Your task to perform on an android device: Clear the cart on newegg. Search for lenovo thinkpad on newegg, select the first entry, and add it to the cart. Image 0: 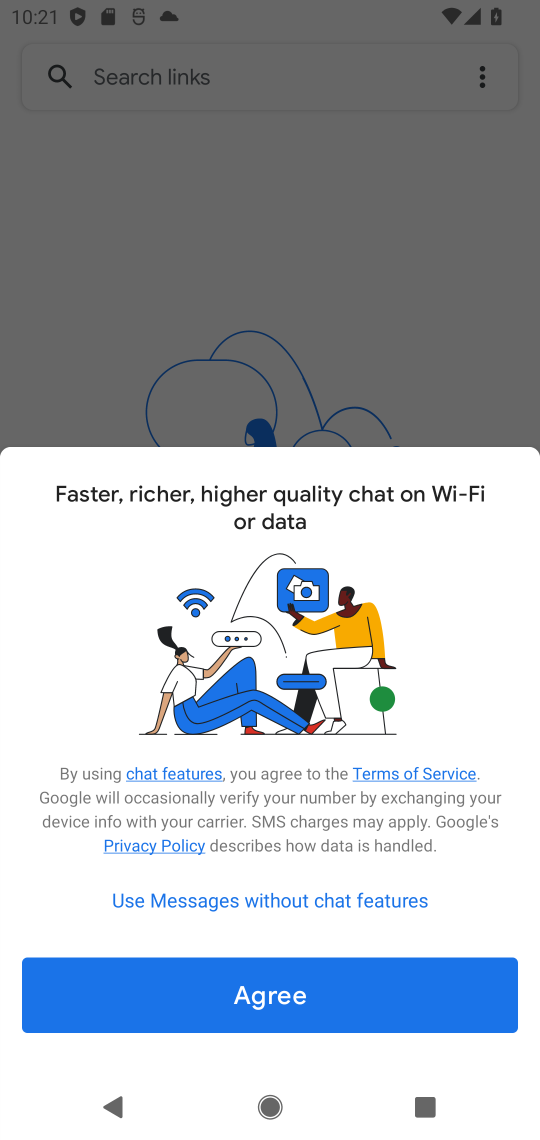
Step 0: press home button
Your task to perform on an android device: Clear the cart on newegg. Search for lenovo thinkpad on newegg, select the first entry, and add it to the cart. Image 1: 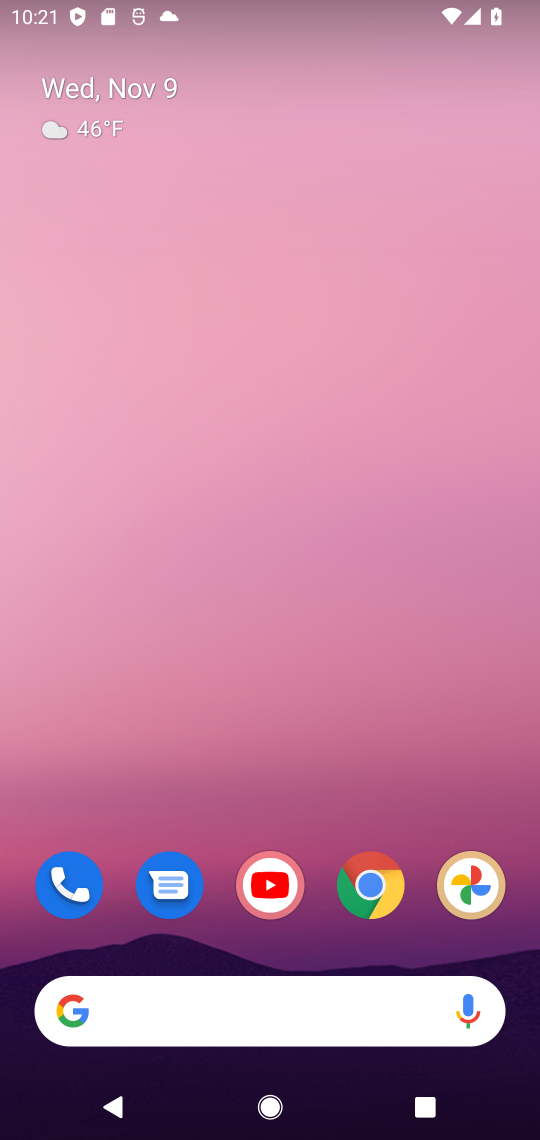
Step 1: click (369, 899)
Your task to perform on an android device: Clear the cart on newegg. Search for lenovo thinkpad on newegg, select the first entry, and add it to the cart. Image 2: 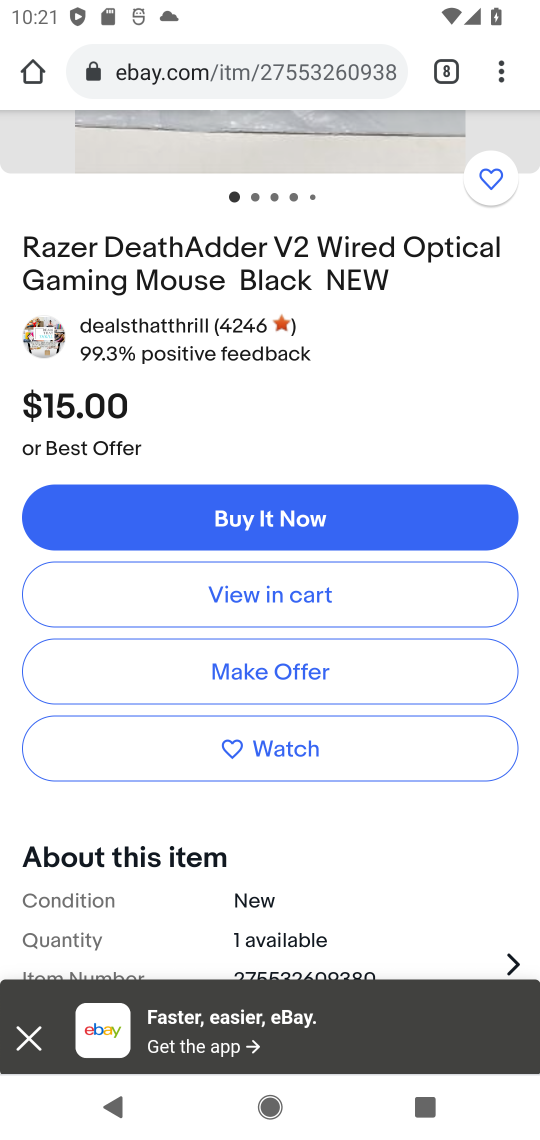
Step 2: click (443, 78)
Your task to perform on an android device: Clear the cart on newegg. Search for lenovo thinkpad on newegg, select the first entry, and add it to the cart. Image 3: 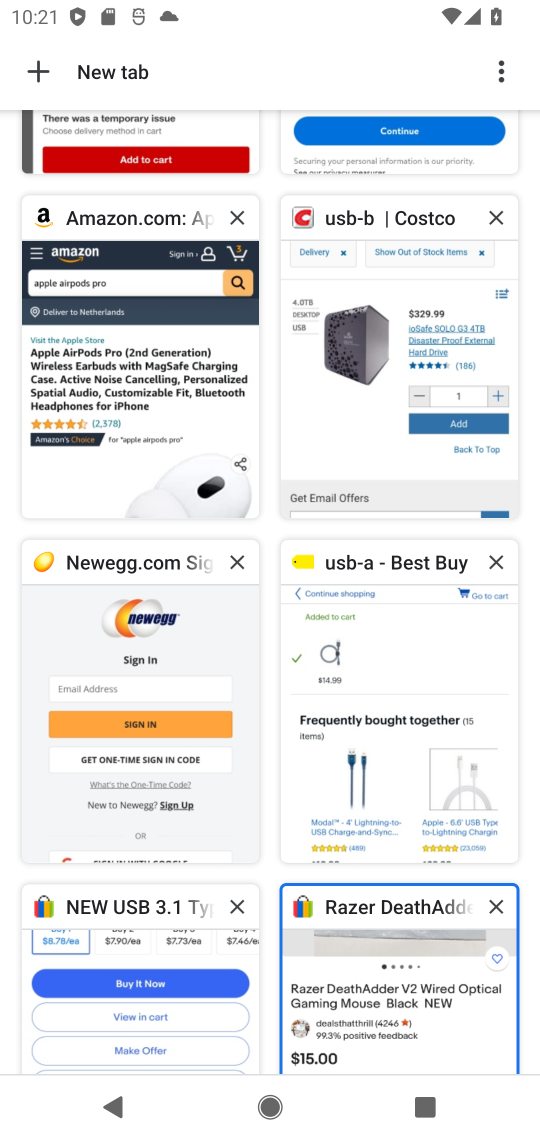
Step 3: click (124, 636)
Your task to perform on an android device: Clear the cart on newegg. Search for lenovo thinkpad on newegg, select the first entry, and add it to the cart. Image 4: 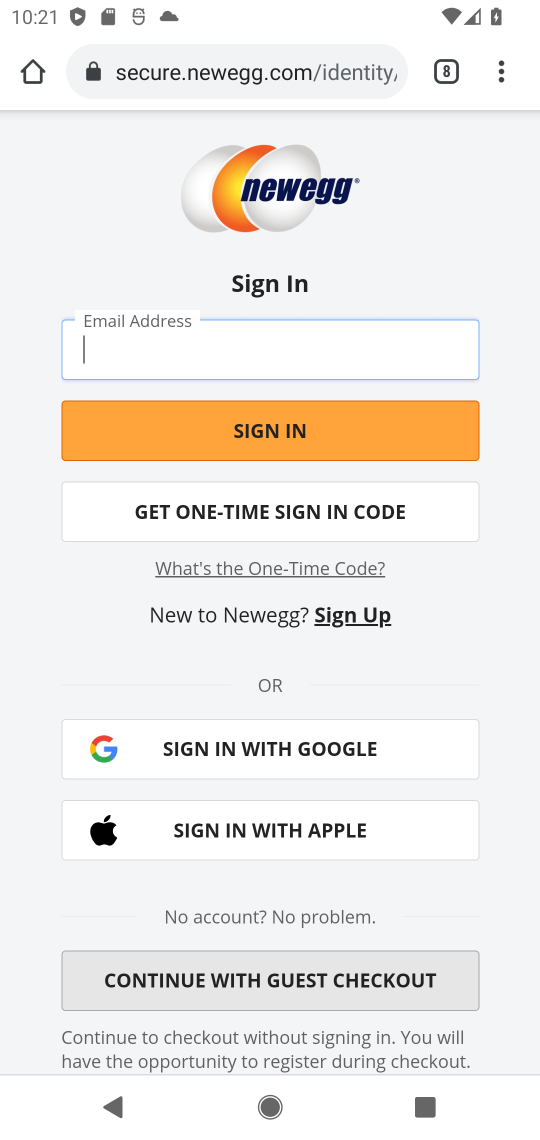
Step 4: press back button
Your task to perform on an android device: Clear the cart on newegg. Search for lenovo thinkpad on newegg, select the first entry, and add it to the cart. Image 5: 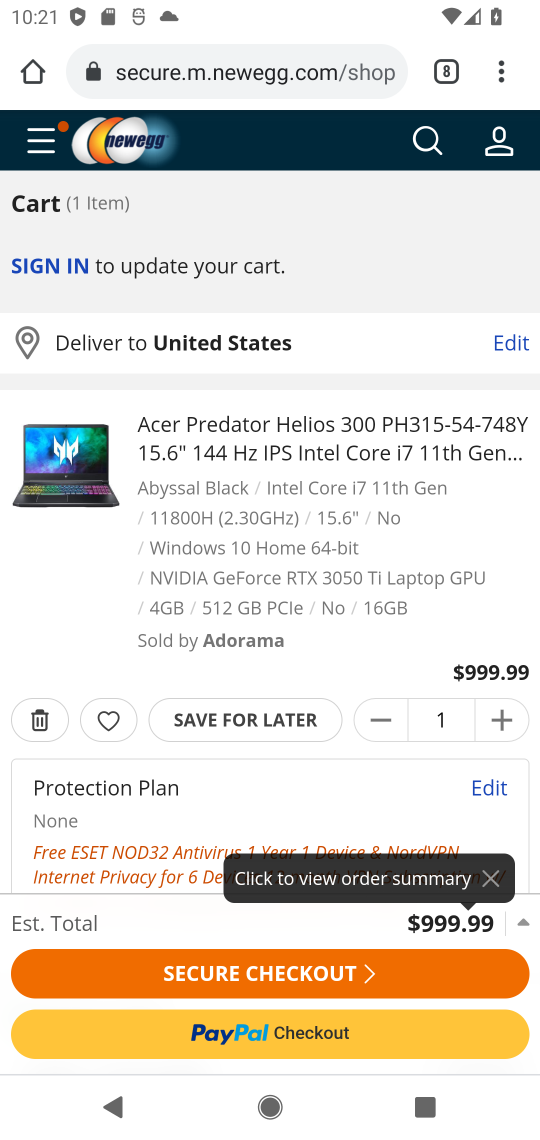
Step 5: click (430, 133)
Your task to perform on an android device: Clear the cart on newegg. Search for lenovo thinkpad on newegg, select the first entry, and add it to the cart. Image 6: 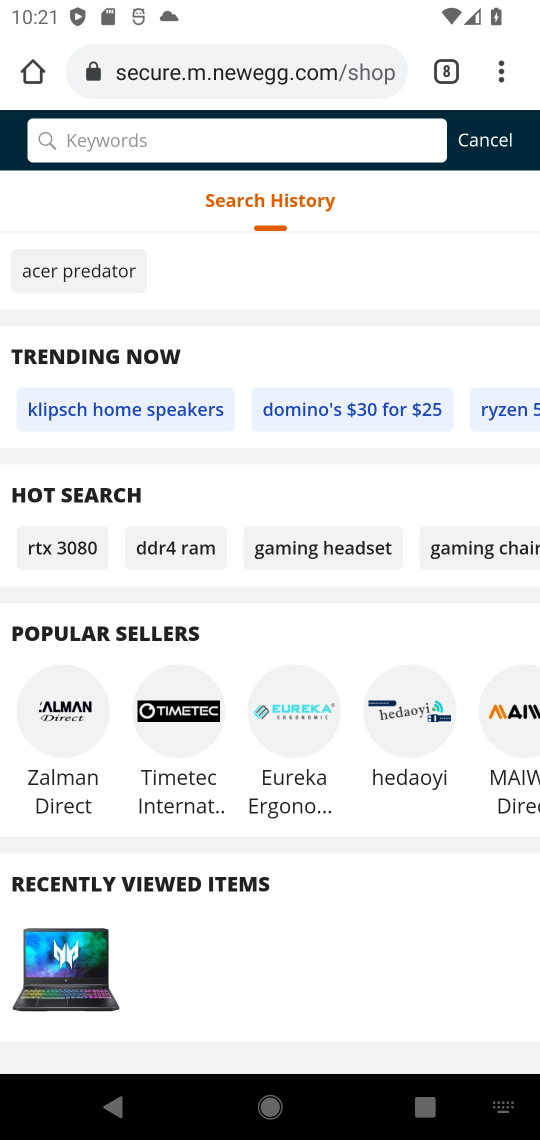
Step 6: type "lenovo thinkpad"
Your task to perform on an android device: Clear the cart on newegg. Search for lenovo thinkpad on newegg, select the first entry, and add it to the cart. Image 7: 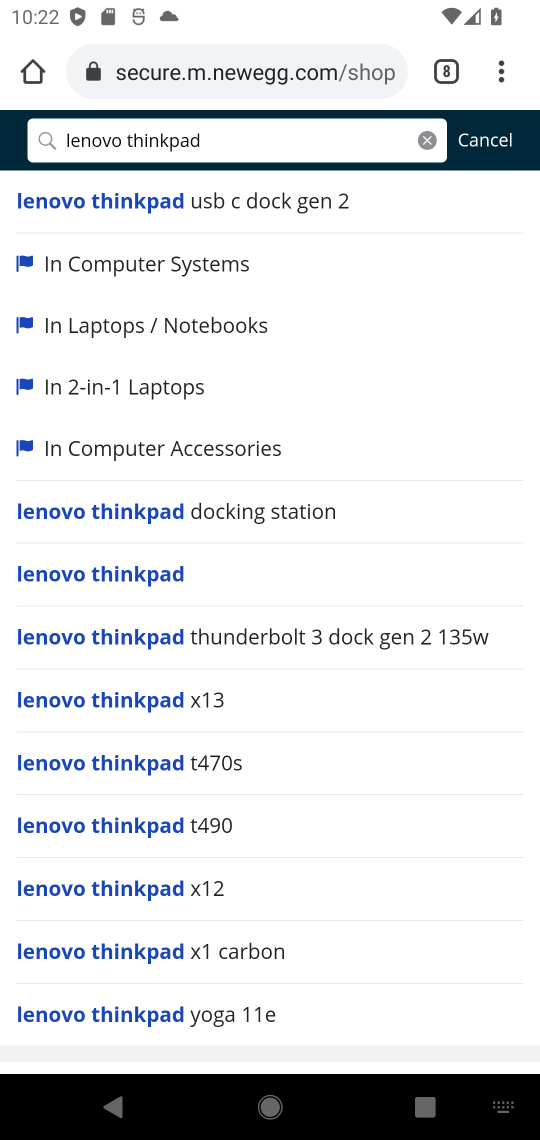
Step 7: click (100, 569)
Your task to perform on an android device: Clear the cart on newegg. Search for lenovo thinkpad on newegg, select the first entry, and add it to the cart. Image 8: 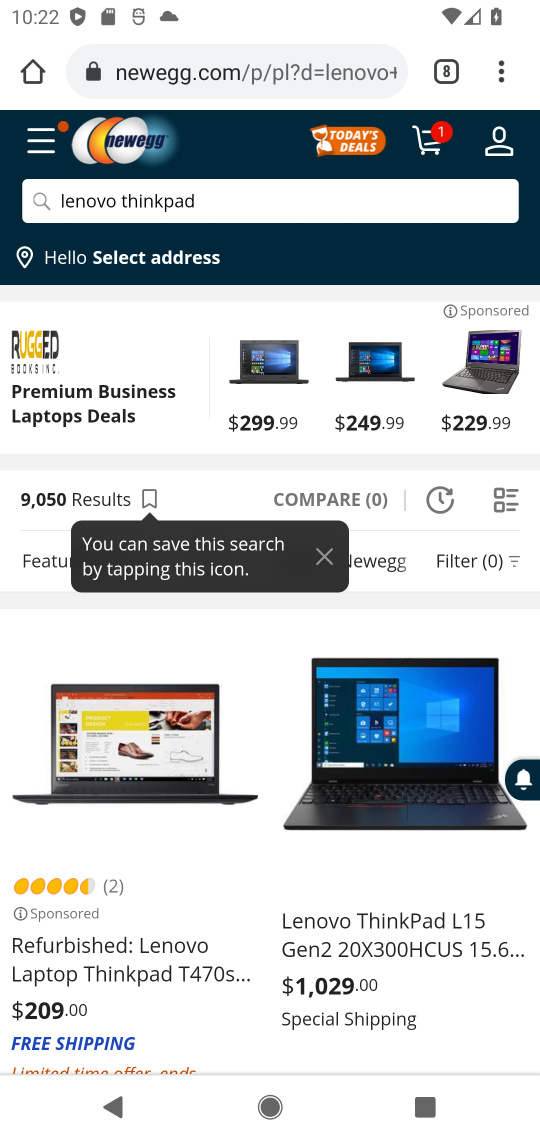
Step 8: click (334, 930)
Your task to perform on an android device: Clear the cart on newegg. Search for lenovo thinkpad on newegg, select the first entry, and add it to the cart. Image 9: 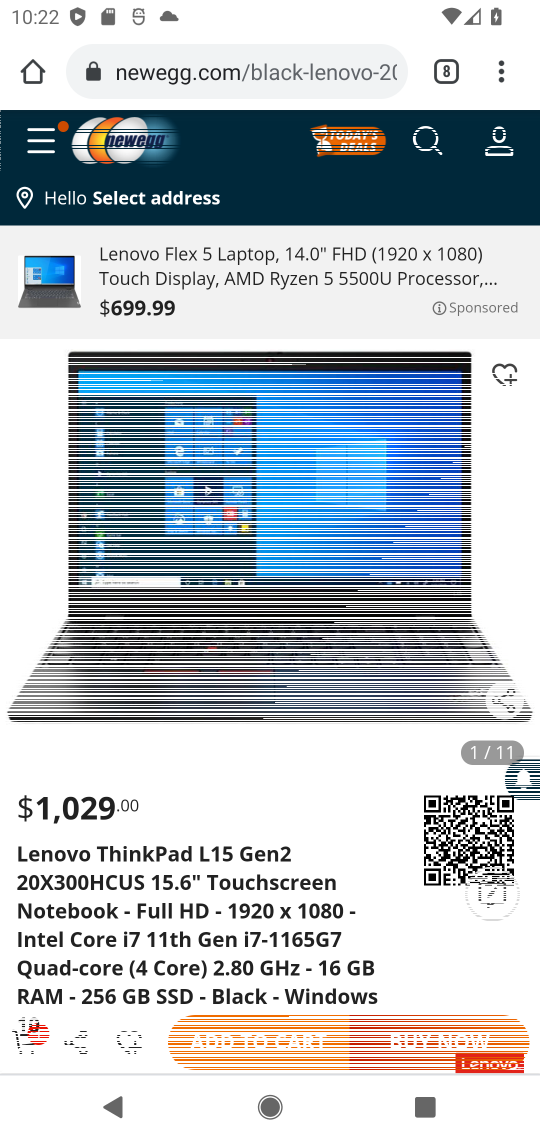
Step 9: click (280, 1036)
Your task to perform on an android device: Clear the cart on newegg. Search for lenovo thinkpad on newegg, select the first entry, and add it to the cart. Image 10: 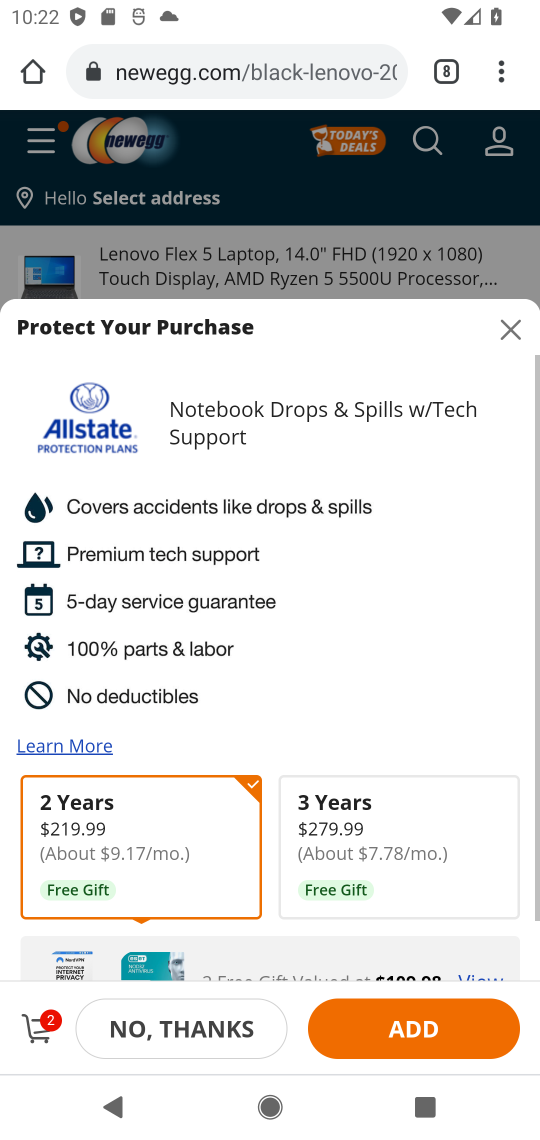
Step 10: click (40, 1025)
Your task to perform on an android device: Clear the cart on newegg. Search for lenovo thinkpad on newegg, select the first entry, and add it to the cart. Image 11: 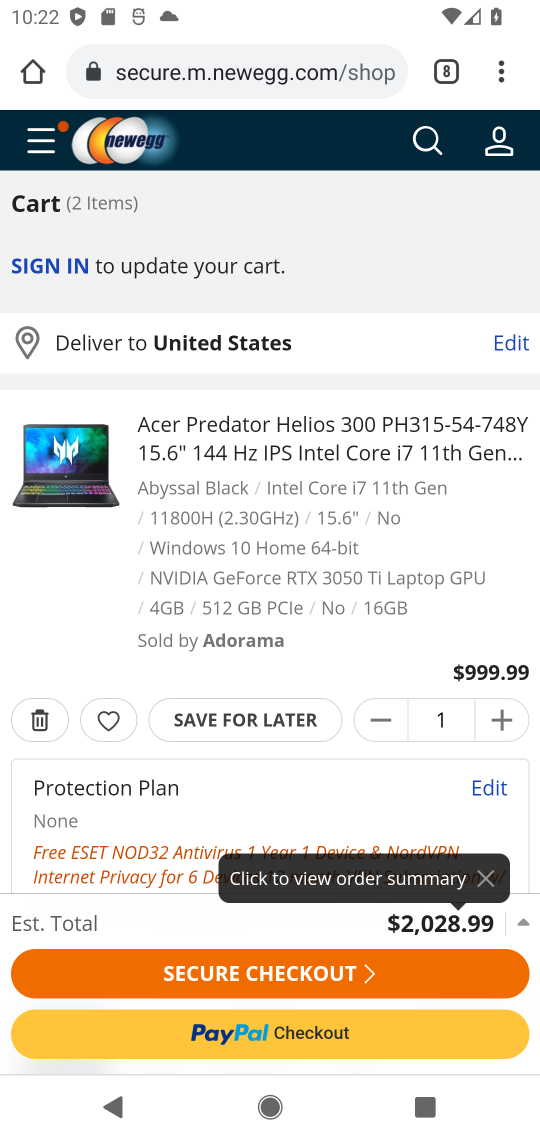
Step 11: click (37, 716)
Your task to perform on an android device: Clear the cart on newegg. Search for lenovo thinkpad on newegg, select the first entry, and add it to the cart. Image 12: 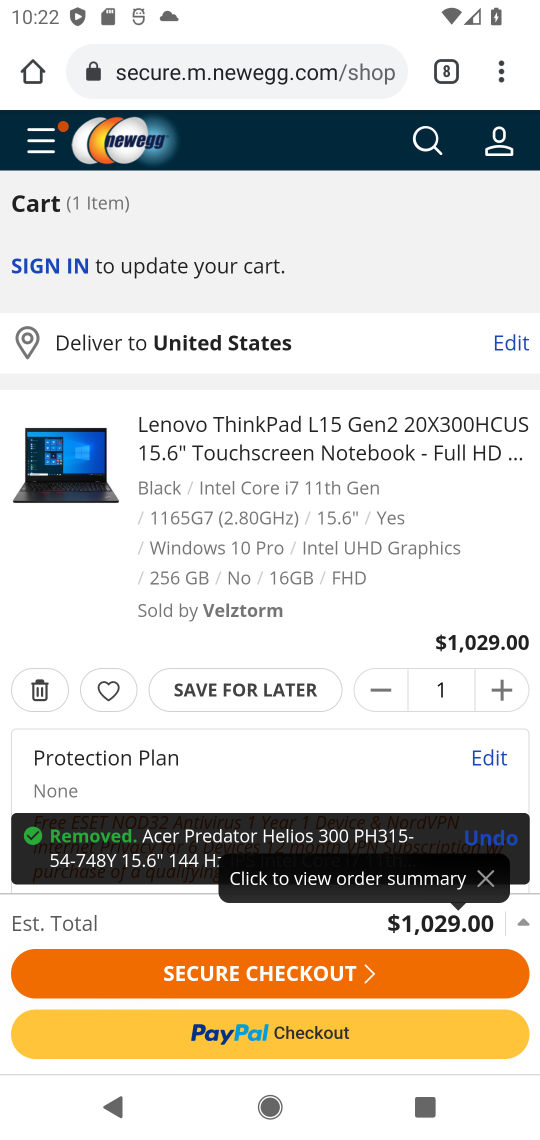
Step 12: task complete